Your task to perform on an android device: remove spam from my inbox in the gmail app Image 0: 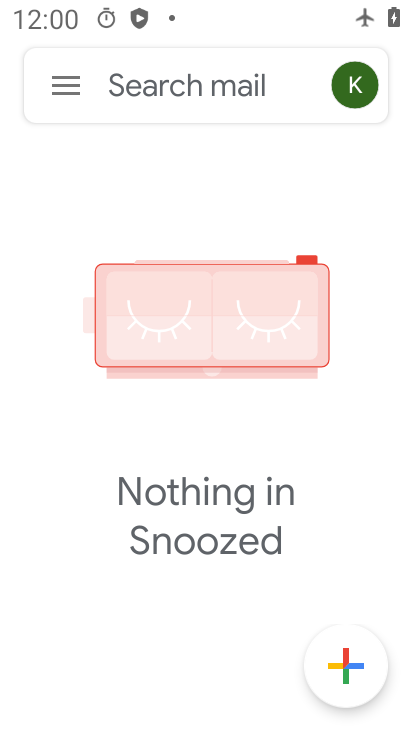
Step 0: press home button
Your task to perform on an android device: remove spam from my inbox in the gmail app Image 1: 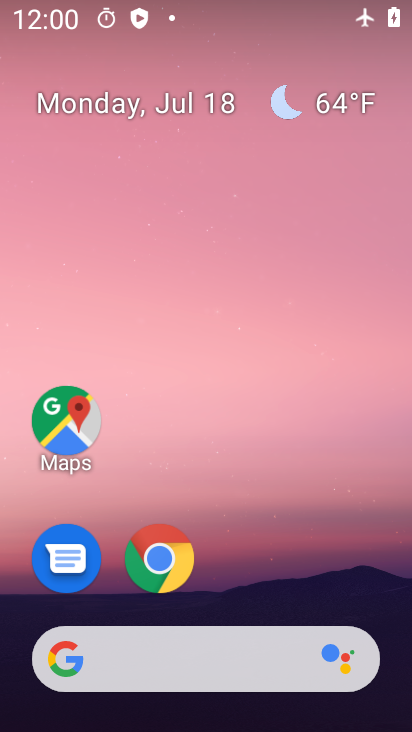
Step 1: drag from (347, 514) to (351, 151)
Your task to perform on an android device: remove spam from my inbox in the gmail app Image 2: 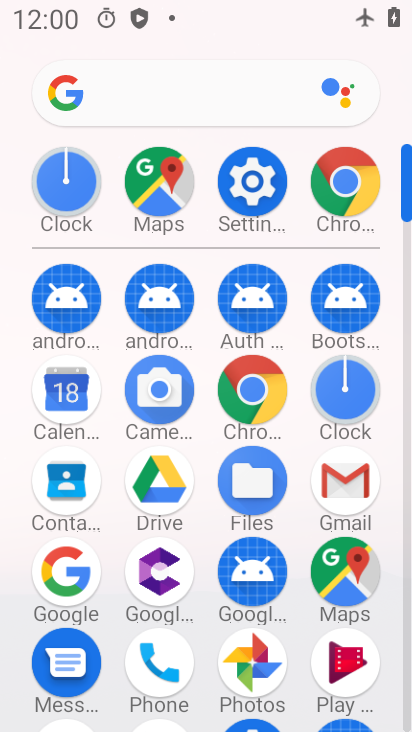
Step 2: click (336, 488)
Your task to perform on an android device: remove spam from my inbox in the gmail app Image 3: 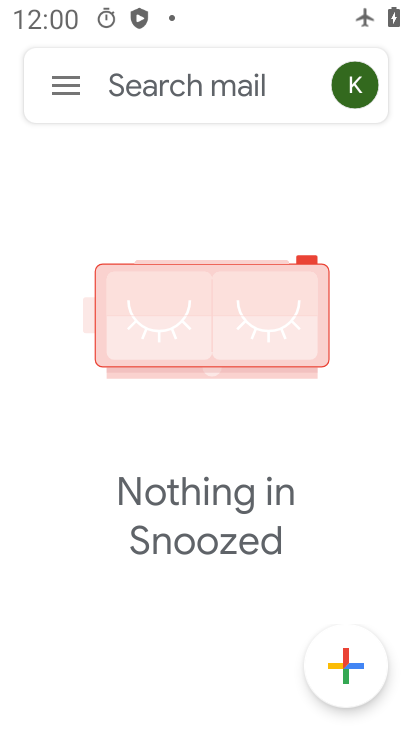
Step 3: click (74, 83)
Your task to perform on an android device: remove spam from my inbox in the gmail app Image 4: 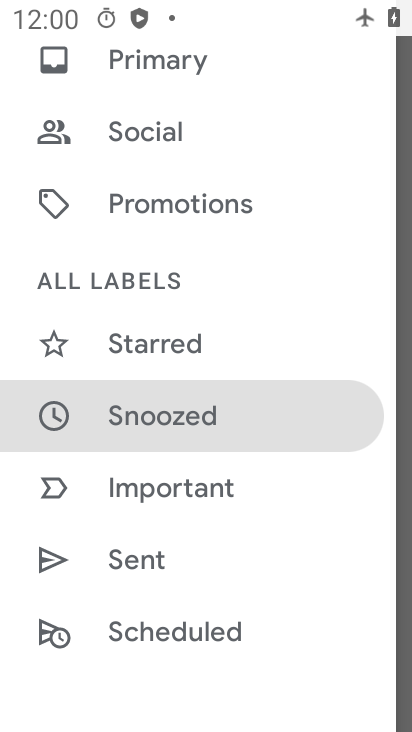
Step 4: drag from (311, 539) to (314, 336)
Your task to perform on an android device: remove spam from my inbox in the gmail app Image 5: 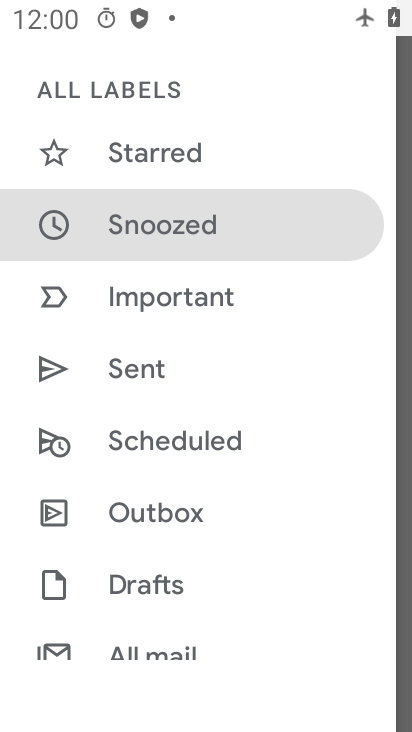
Step 5: drag from (327, 548) to (336, 394)
Your task to perform on an android device: remove spam from my inbox in the gmail app Image 6: 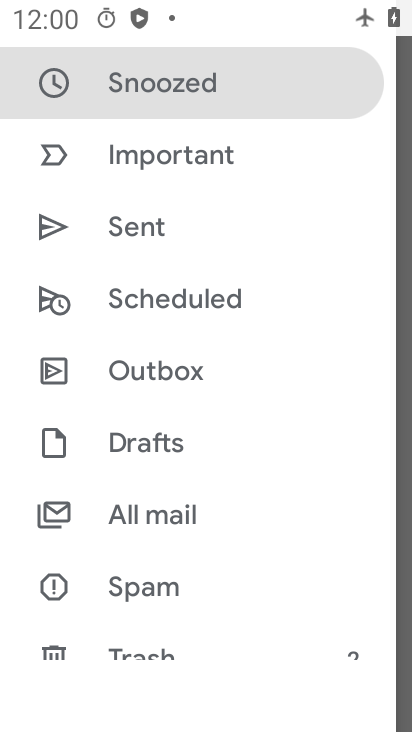
Step 6: drag from (328, 520) to (330, 409)
Your task to perform on an android device: remove spam from my inbox in the gmail app Image 7: 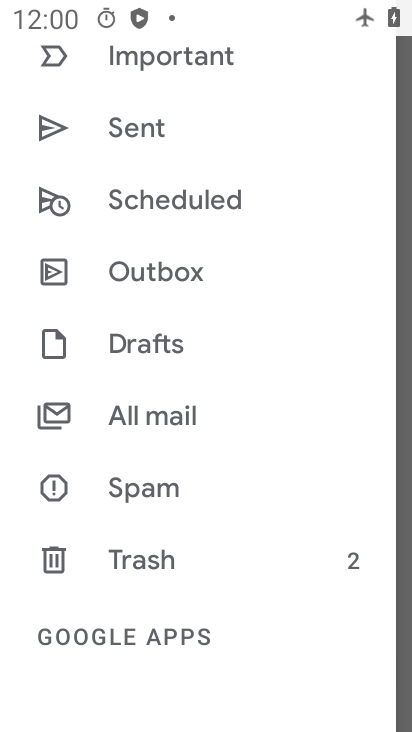
Step 7: drag from (309, 594) to (301, 479)
Your task to perform on an android device: remove spam from my inbox in the gmail app Image 8: 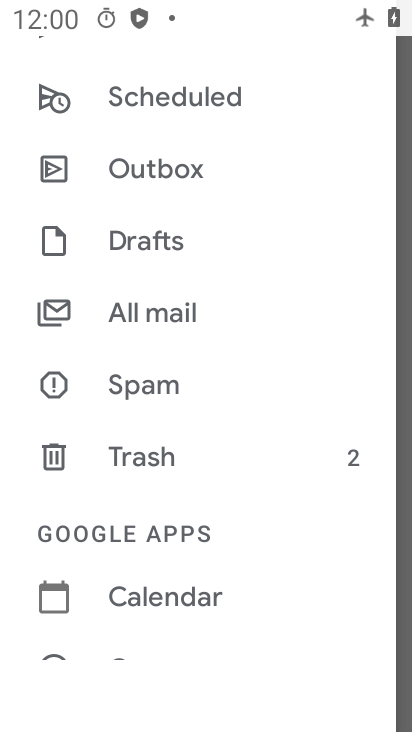
Step 8: click (212, 389)
Your task to perform on an android device: remove spam from my inbox in the gmail app Image 9: 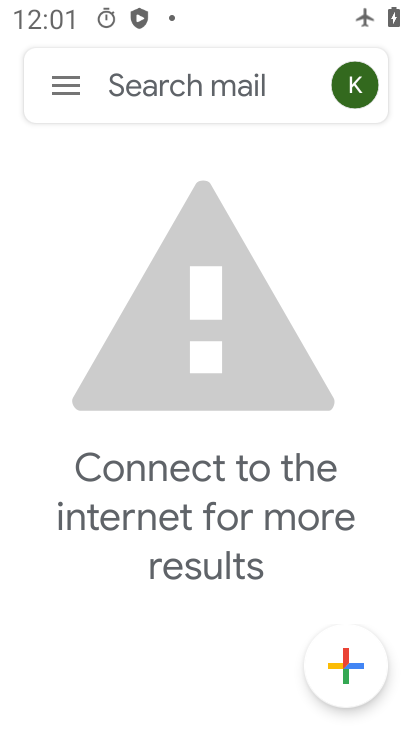
Step 9: task complete